Your task to perform on an android device: Toggle the flashlight Image 0: 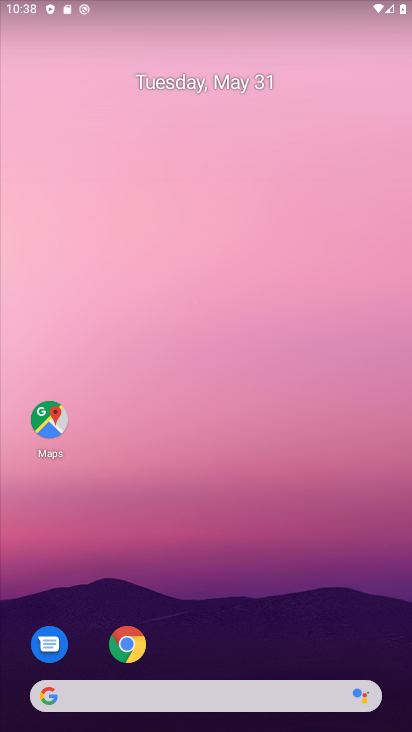
Step 0: drag from (277, 630) to (246, 79)
Your task to perform on an android device: Toggle the flashlight Image 1: 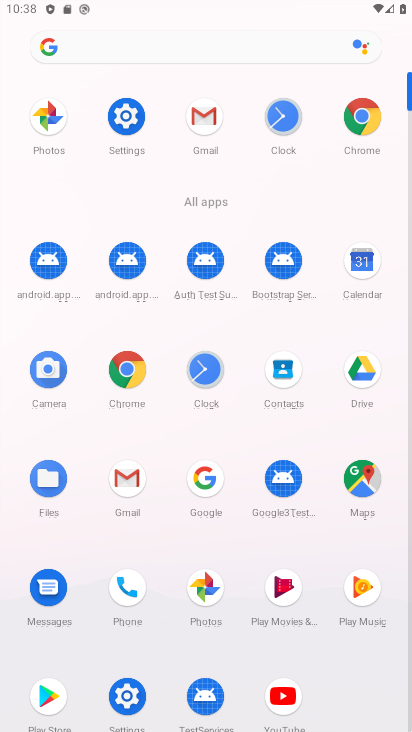
Step 1: click (129, 114)
Your task to perform on an android device: Toggle the flashlight Image 2: 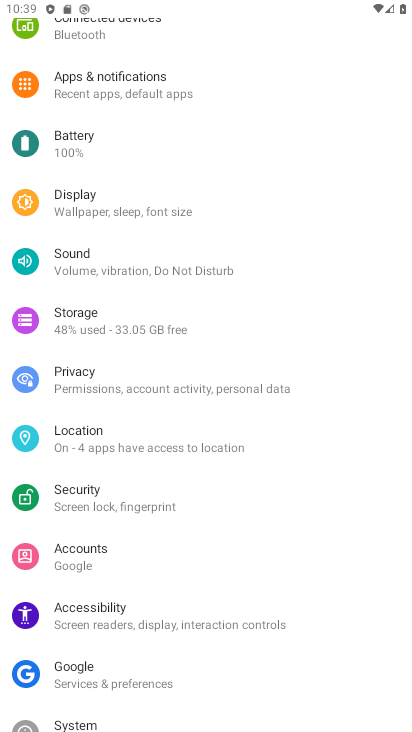
Step 2: click (118, 197)
Your task to perform on an android device: Toggle the flashlight Image 3: 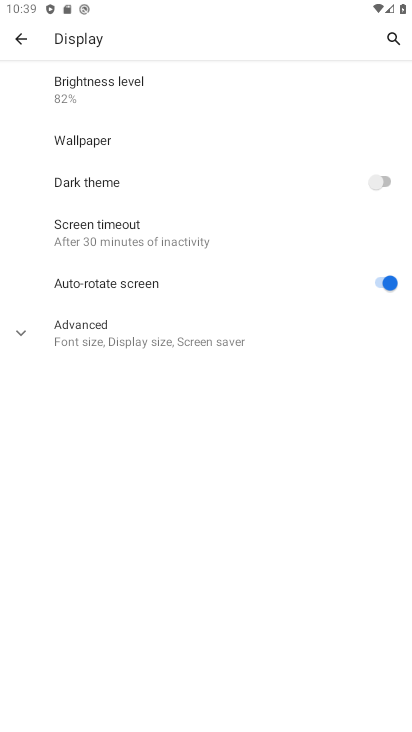
Step 3: task complete